Your task to perform on an android device: set the stopwatch Image 0: 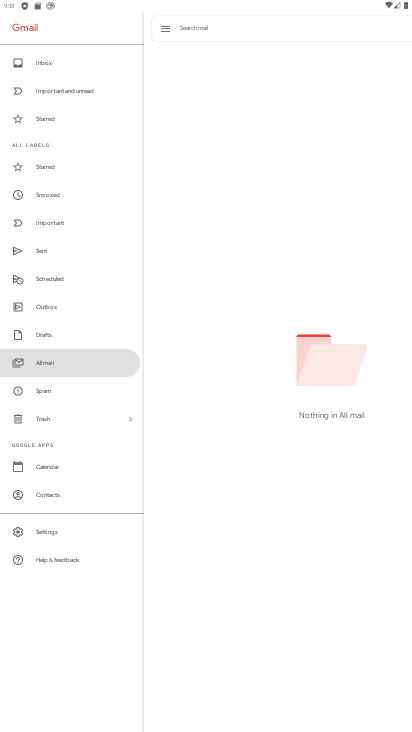
Step 0: press home button
Your task to perform on an android device: set the stopwatch Image 1: 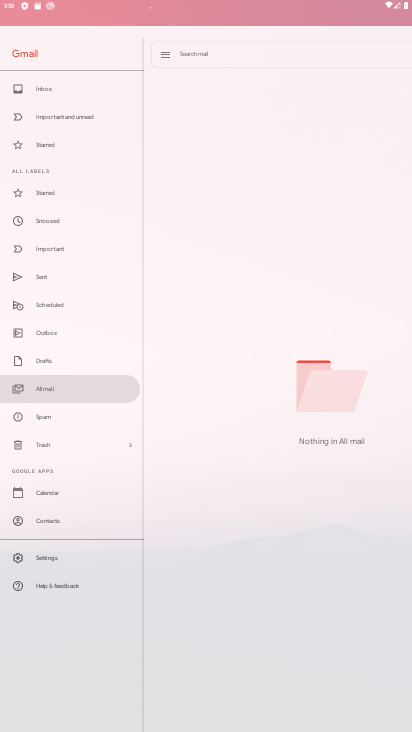
Step 1: drag from (360, 73) to (369, 10)
Your task to perform on an android device: set the stopwatch Image 2: 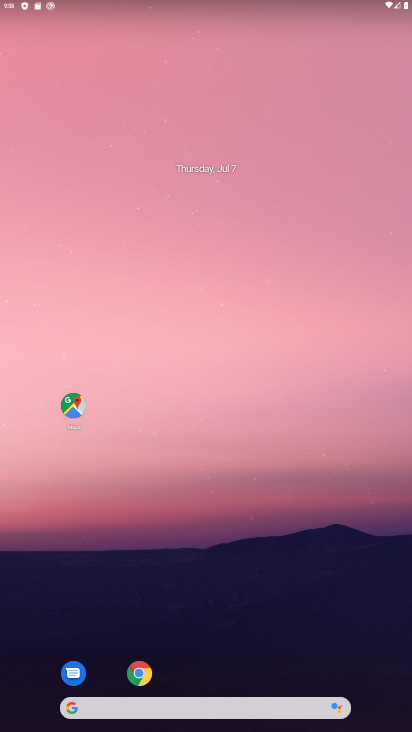
Step 2: drag from (269, 504) to (23, 105)
Your task to perform on an android device: set the stopwatch Image 3: 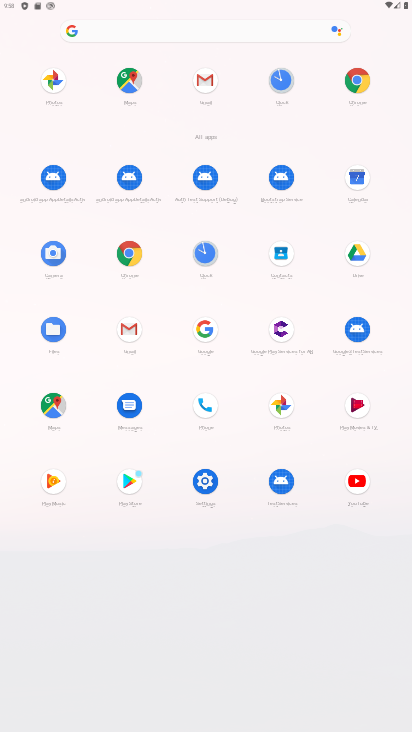
Step 3: click (289, 84)
Your task to perform on an android device: set the stopwatch Image 4: 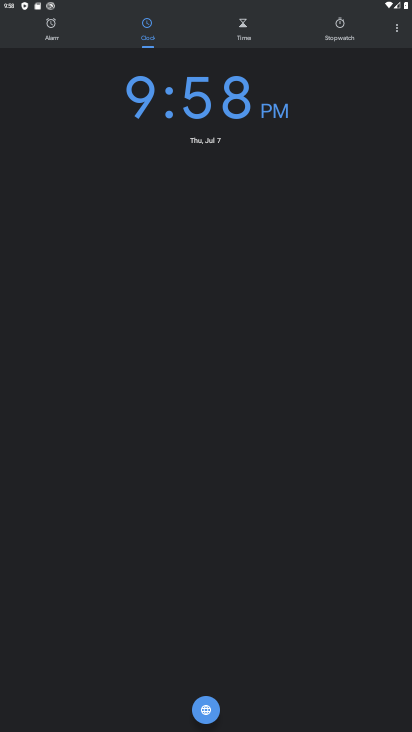
Step 4: click (333, 29)
Your task to perform on an android device: set the stopwatch Image 5: 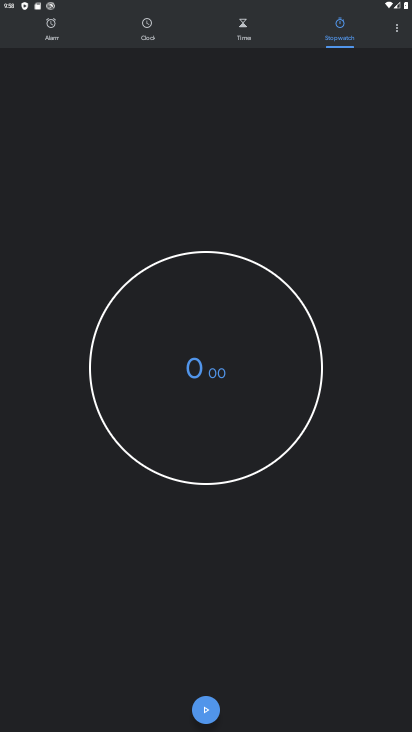
Step 5: click (207, 730)
Your task to perform on an android device: set the stopwatch Image 6: 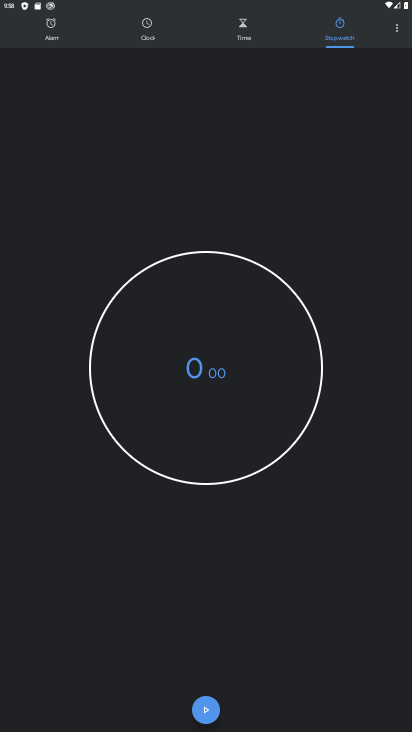
Step 6: click (211, 719)
Your task to perform on an android device: set the stopwatch Image 7: 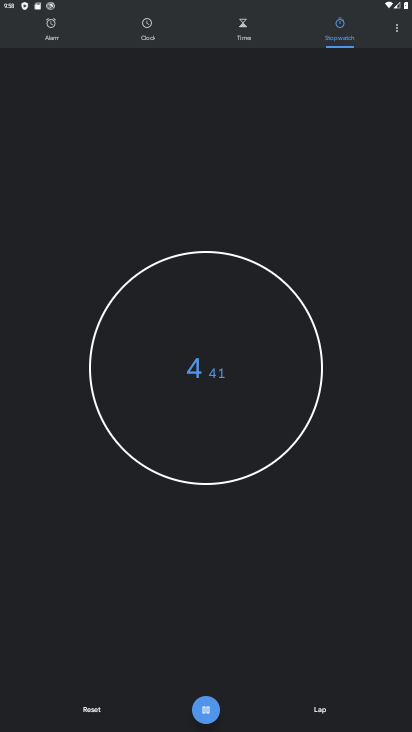
Step 7: task complete